Your task to perform on an android device: Go to ESPN.com Image 0: 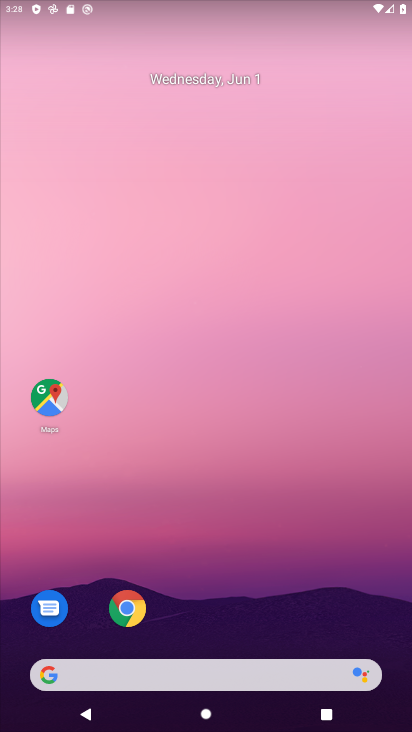
Step 0: click (132, 606)
Your task to perform on an android device: Go to ESPN.com Image 1: 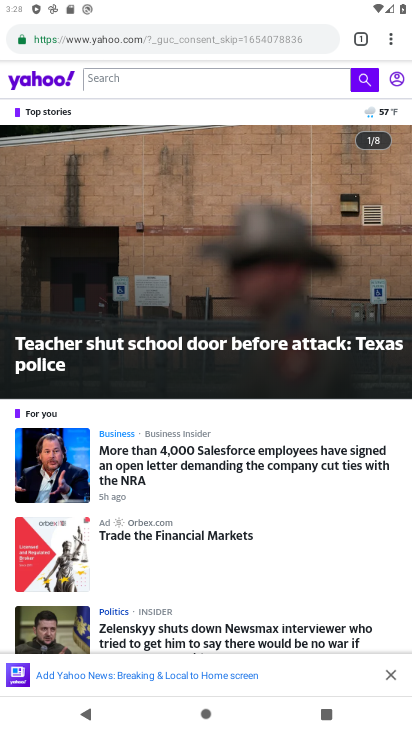
Step 1: click (207, 34)
Your task to perform on an android device: Go to ESPN.com Image 2: 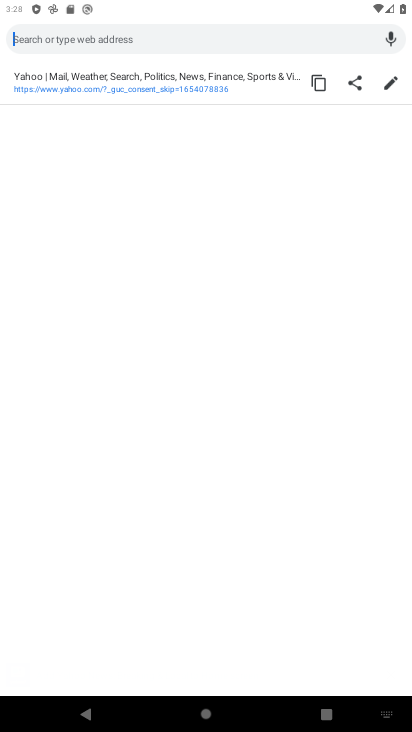
Step 2: type "espn.com"
Your task to perform on an android device: Go to ESPN.com Image 3: 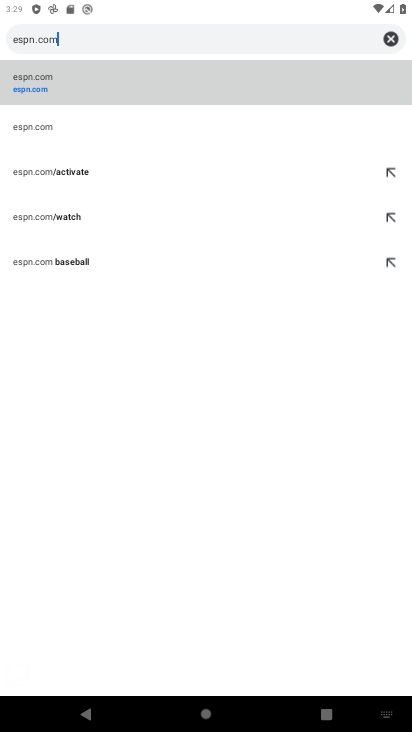
Step 3: click (35, 68)
Your task to perform on an android device: Go to ESPN.com Image 4: 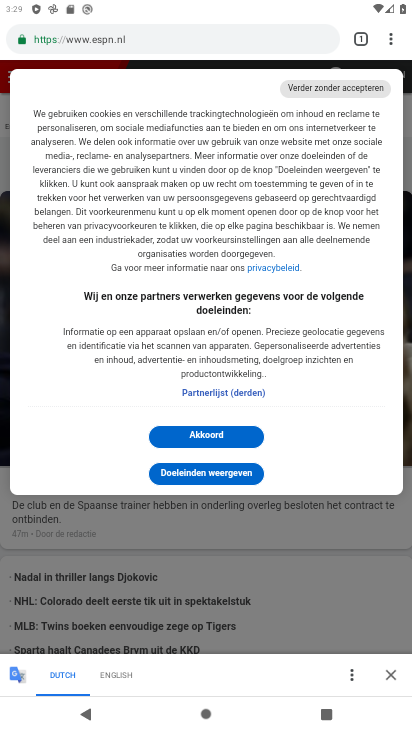
Step 4: task complete